Your task to perform on an android device: Go to Google Image 0: 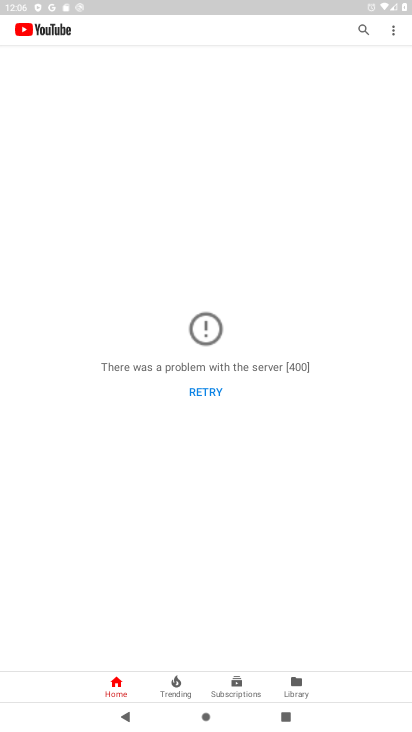
Step 0: press home button
Your task to perform on an android device: Go to Google Image 1: 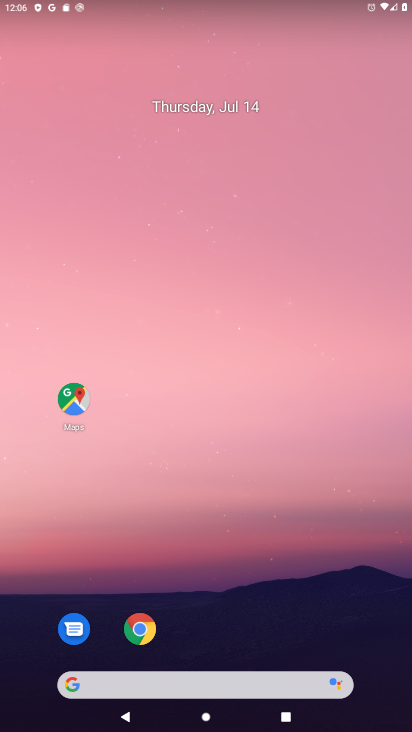
Step 1: drag from (196, 690) to (226, 341)
Your task to perform on an android device: Go to Google Image 2: 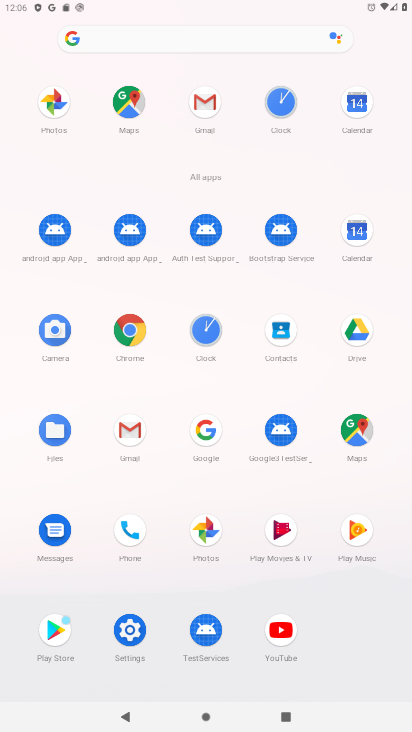
Step 2: click (203, 427)
Your task to perform on an android device: Go to Google Image 3: 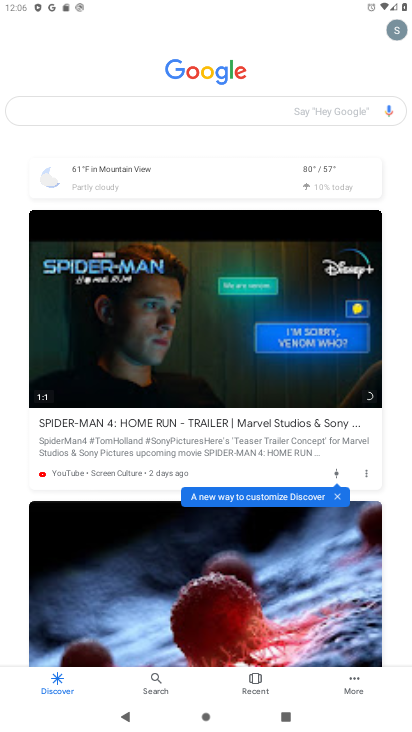
Step 3: task complete